Your task to perform on an android device: find which apps use the phone's location Image 0: 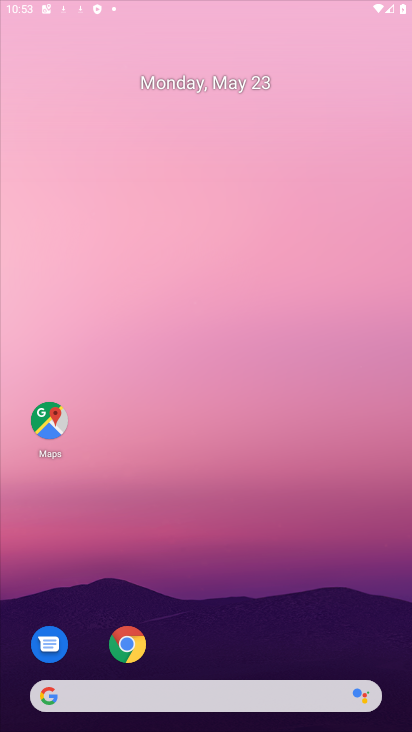
Step 0: press home button
Your task to perform on an android device: find which apps use the phone's location Image 1: 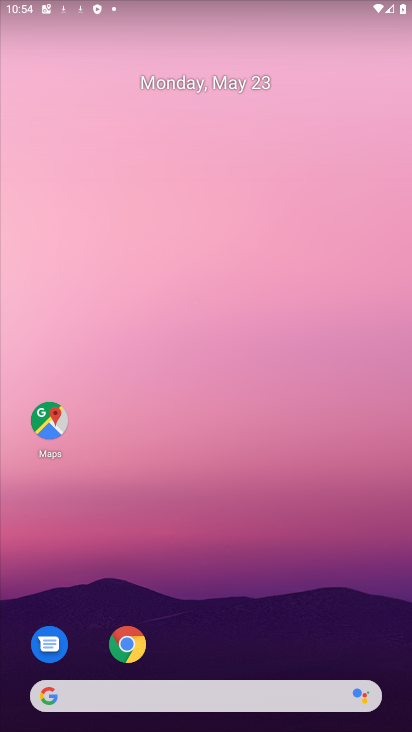
Step 1: drag from (259, 719) to (305, 103)
Your task to perform on an android device: find which apps use the phone's location Image 2: 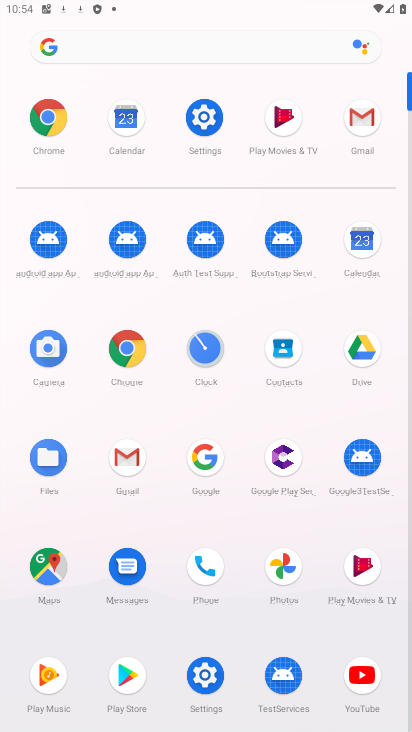
Step 2: click (204, 119)
Your task to perform on an android device: find which apps use the phone's location Image 3: 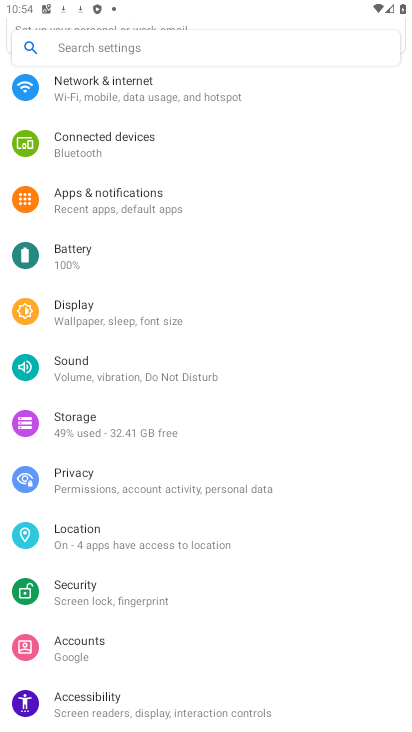
Step 3: click (101, 531)
Your task to perform on an android device: find which apps use the phone's location Image 4: 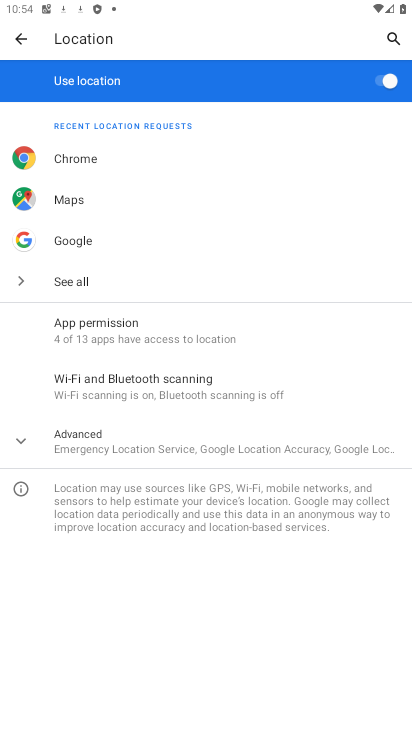
Step 4: task complete